Your task to perform on an android device: Go to Amazon Image 0: 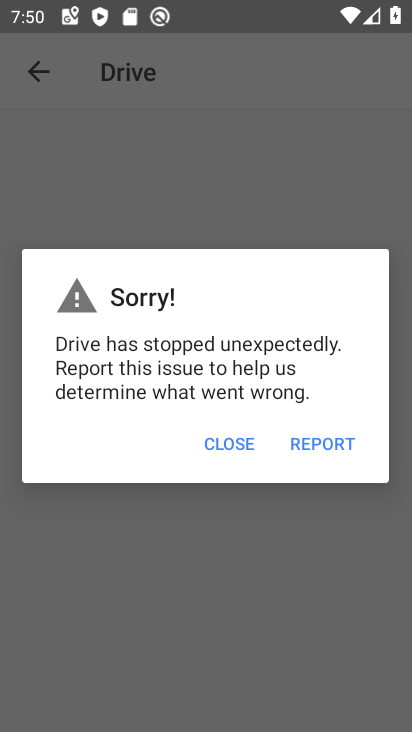
Step 0: press home button
Your task to perform on an android device: Go to Amazon Image 1: 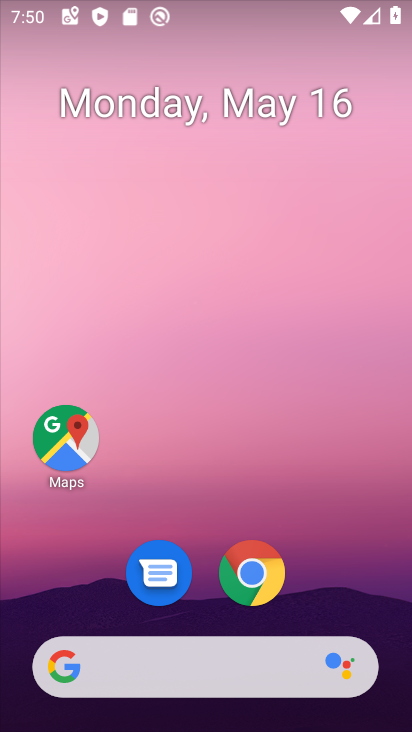
Step 1: click (250, 576)
Your task to perform on an android device: Go to Amazon Image 2: 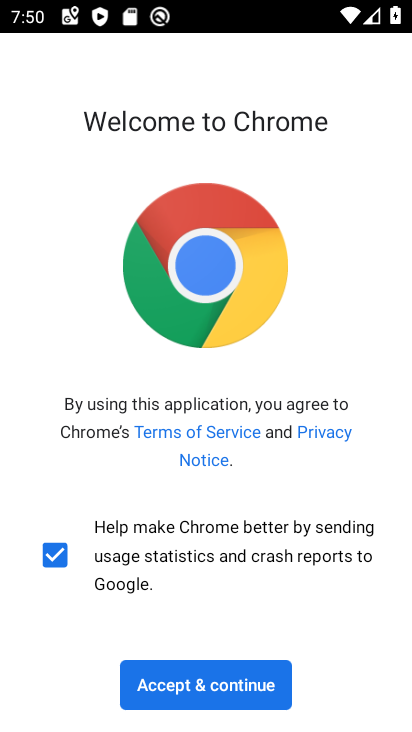
Step 2: click (258, 693)
Your task to perform on an android device: Go to Amazon Image 3: 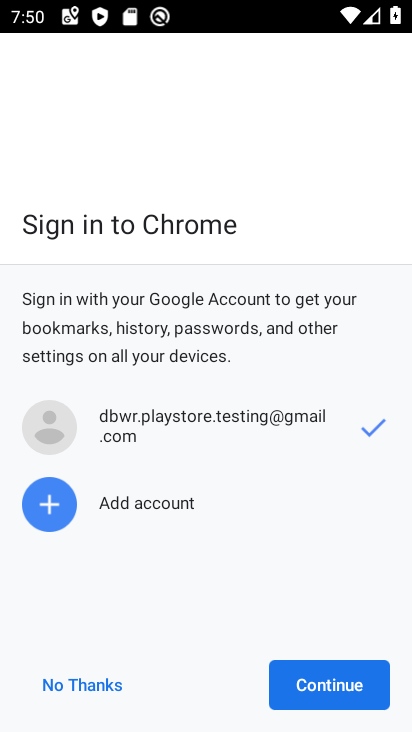
Step 3: click (311, 682)
Your task to perform on an android device: Go to Amazon Image 4: 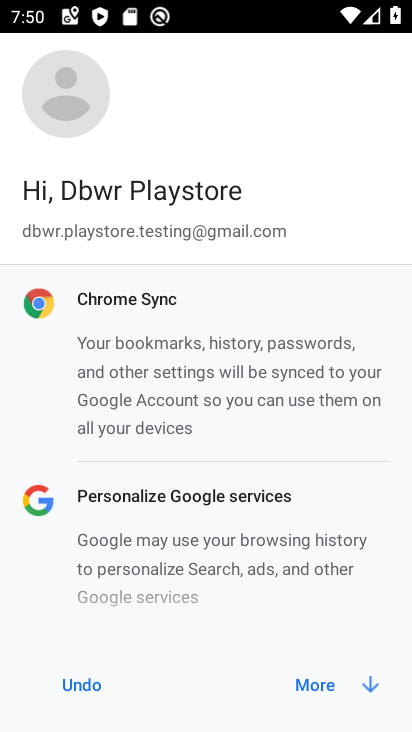
Step 4: click (322, 693)
Your task to perform on an android device: Go to Amazon Image 5: 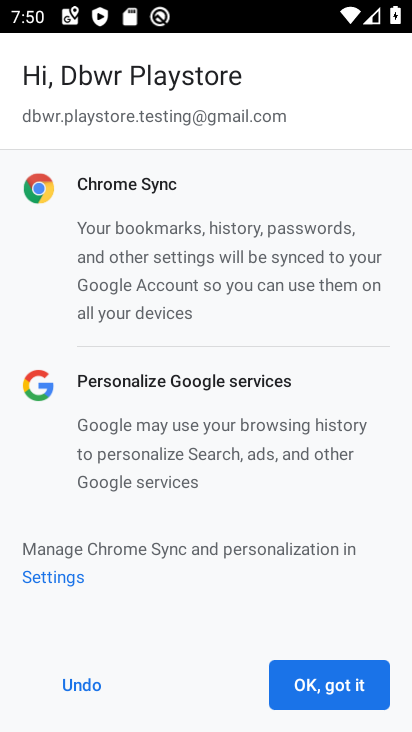
Step 5: click (323, 694)
Your task to perform on an android device: Go to Amazon Image 6: 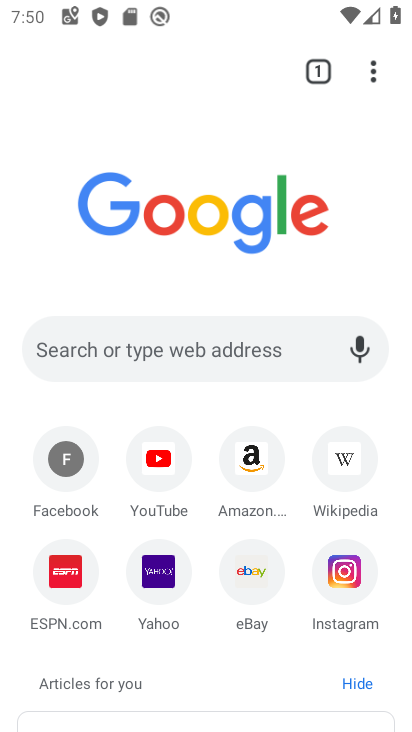
Step 6: click (258, 472)
Your task to perform on an android device: Go to Amazon Image 7: 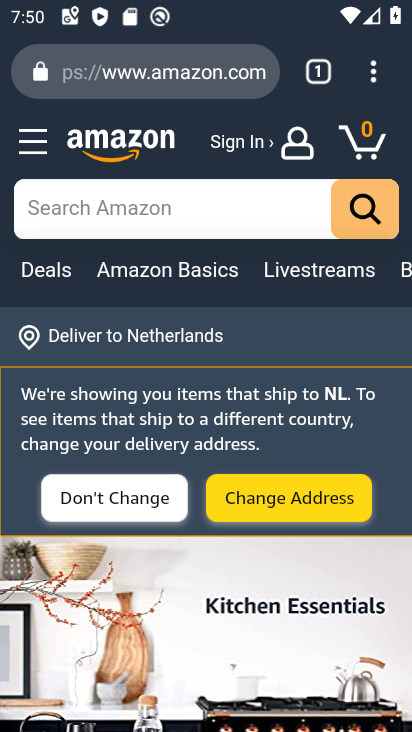
Step 7: task complete